Your task to perform on an android device: Go to network settings Image 0: 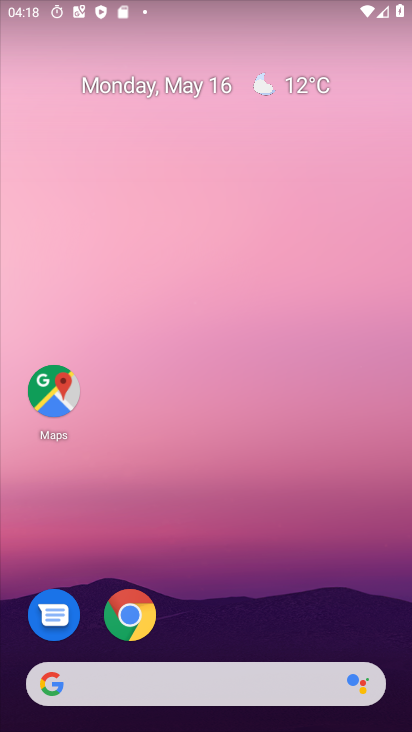
Step 0: drag from (230, 526) to (188, 21)
Your task to perform on an android device: Go to network settings Image 1: 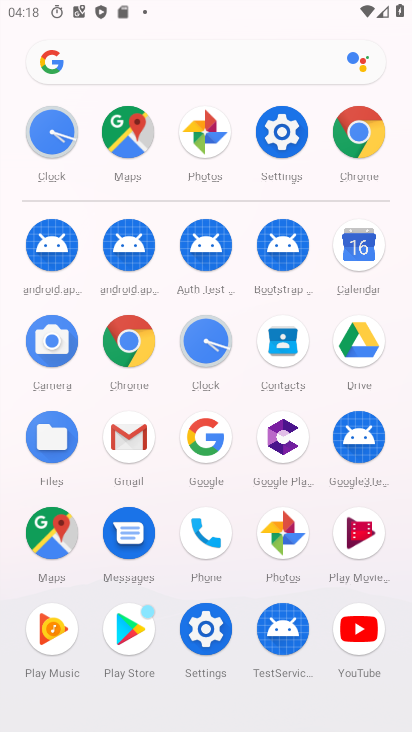
Step 1: click (286, 138)
Your task to perform on an android device: Go to network settings Image 2: 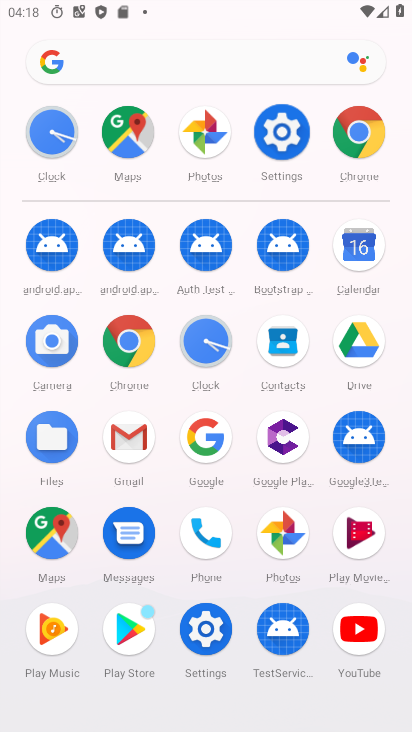
Step 2: click (286, 139)
Your task to perform on an android device: Go to network settings Image 3: 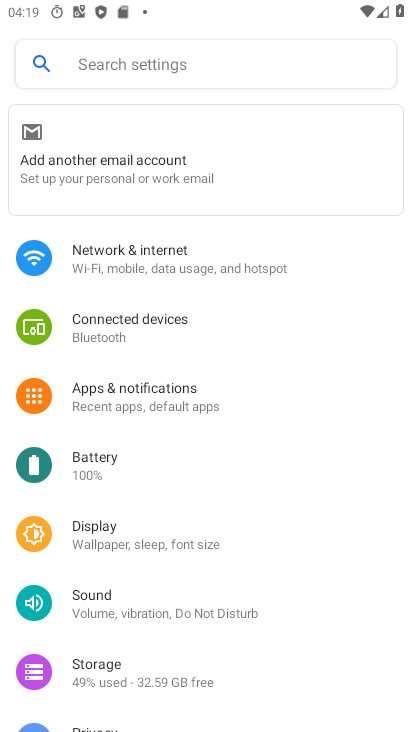
Step 3: drag from (135, 576) to (48, 250)
Your task to perform on an android device: Go to network settings Image 4: 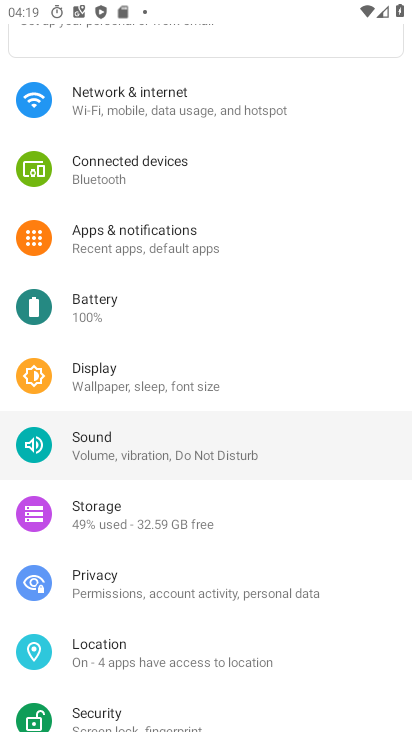
Step 4: drag from (146, 455) to (150, 124)
Your task to perform on an android device: Go to network settings Image 5: 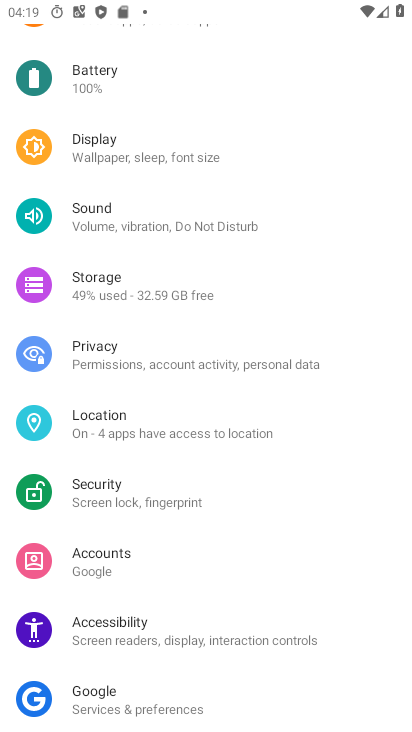
Step 5: drag from (176, 372) to (159, 82)
Your task to perform on an android device: Go to network settings Image 6: 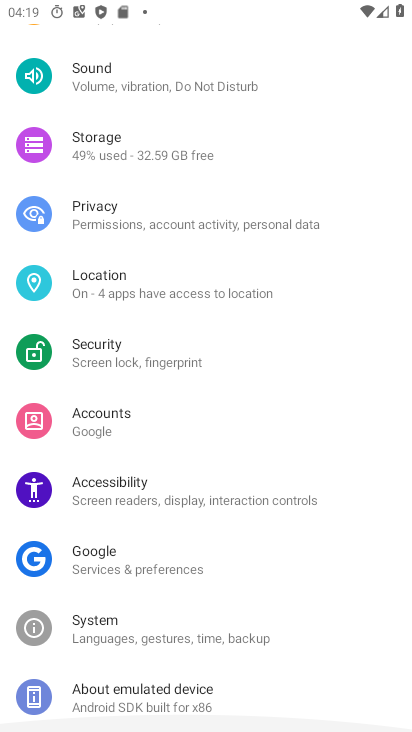
Step 6: drag from (228, 500) to (213, 38)
Your task to perform on an android device: Go to network settings Image 7: 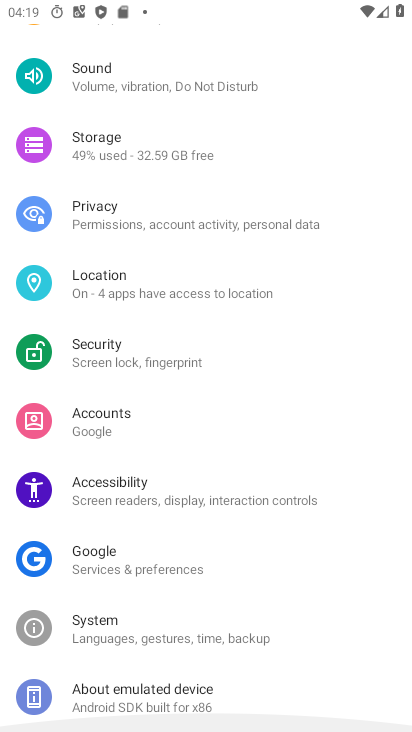
Step 7: drag from (251, 7) to (267, 47)
Your task to perform on an android device: Go to network settings Image 8: 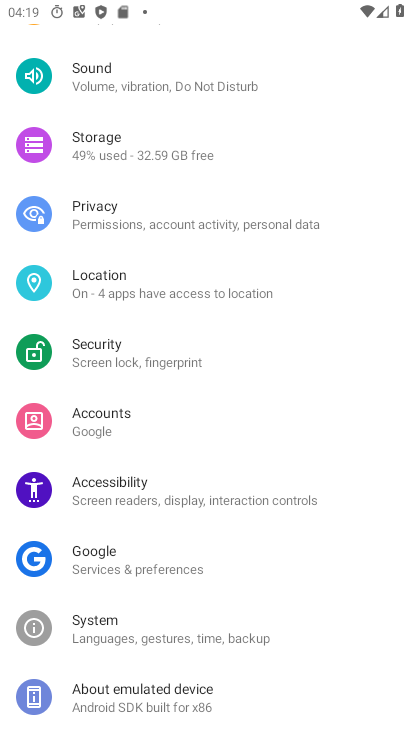
Step 8: drag from (207, 418) to (194, 166)
Your task to perform on an android device: Go to network settings Image 9: 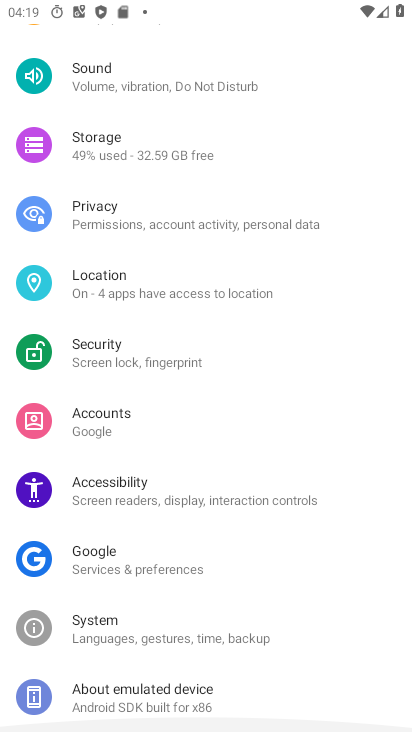
Step 9: drag from (235, 498) to (201, 143)
Your task to perform on an android device: Go to network settings Image 10: 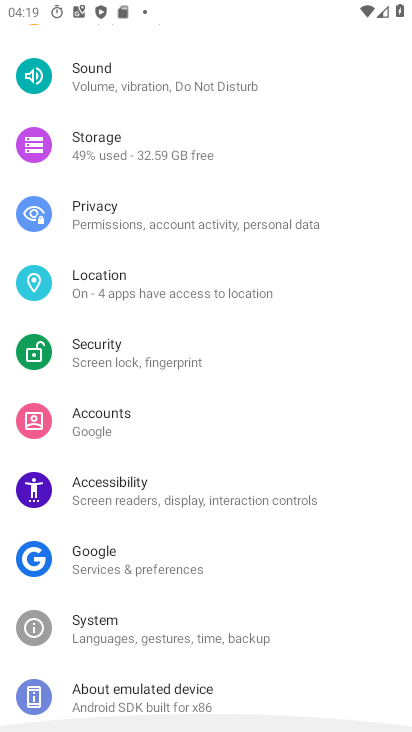
Step 10: drag from (267, 564) to (239, 181)
Your task to perform on an android device: Go to network settings Image 11: 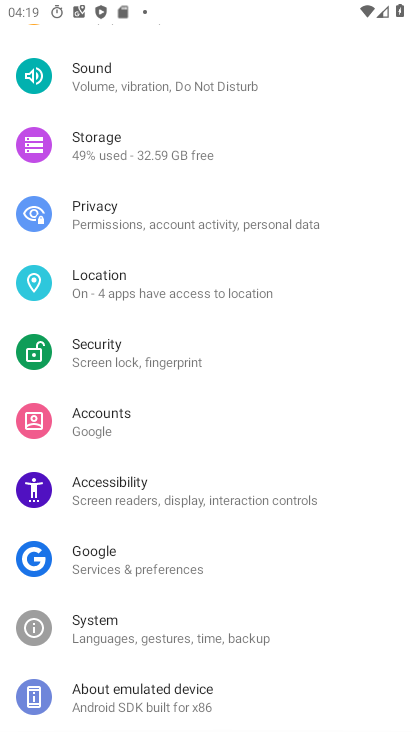
Step 11: drag from (126, 360) to (196, 540)
Your task to perform on an android device: Go to network settings Image 12: 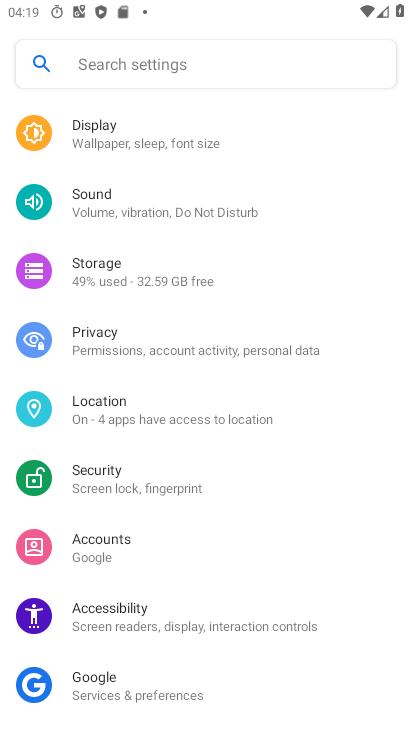
Step 12: drag from (105, 278) to (166, 590)
Your task to perform on an android device: Go to network settings Image 13: 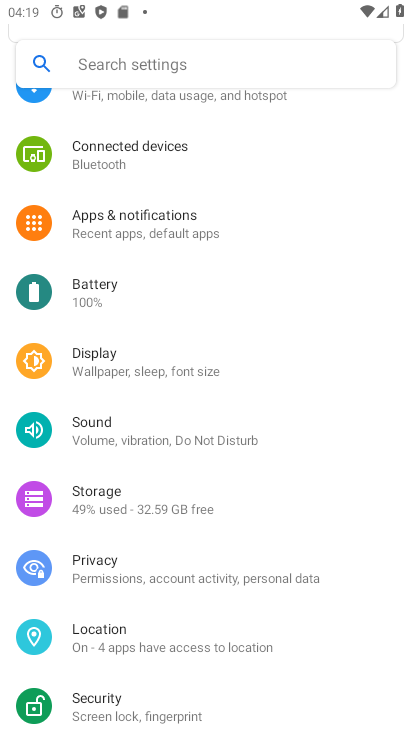
Step 13: drag from (140, 256) to (209, 716)
Your task to perform on an android device: Go to network settings Image 14: 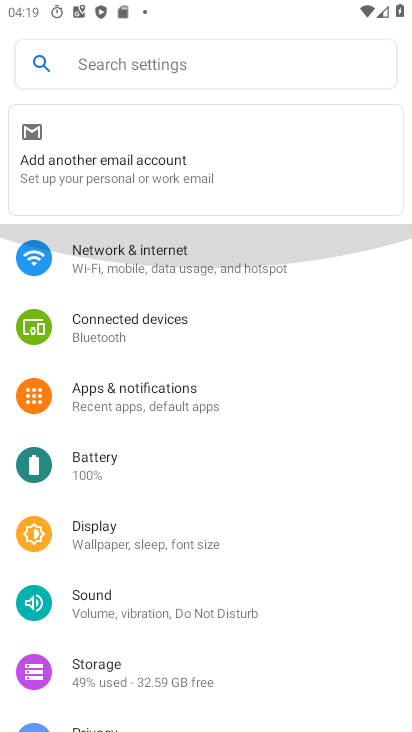
Step 14: drag from (134, 252) to (253, 673)
Your task to perform on an android device: Go to network settings Image 15: 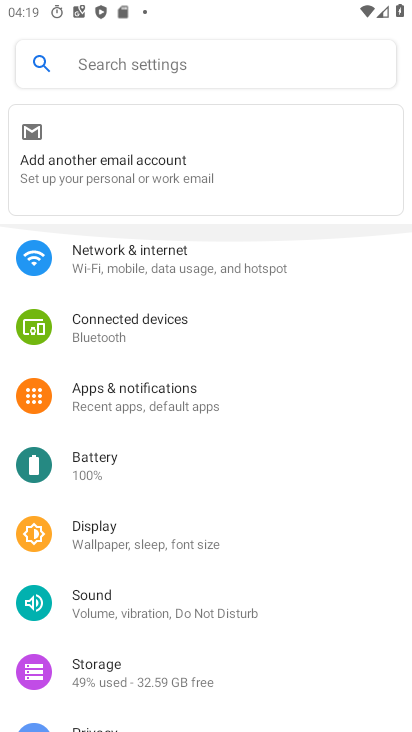
Step 15: click (230, 597)
Your task to perform on an android device: Go to network settings Image 16: 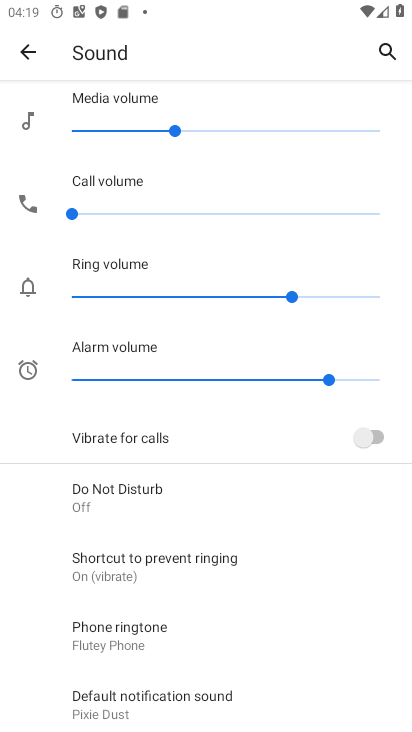
Step 16: click (26, 54)
Your task to perform on an android device: Go to network settings Image 17: 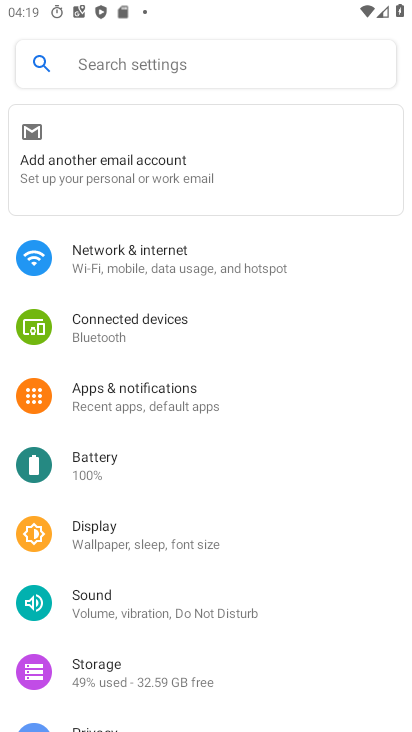
Step 17: click (133, 255)
Your task to perform on an android device: Go to network settings Image 18: 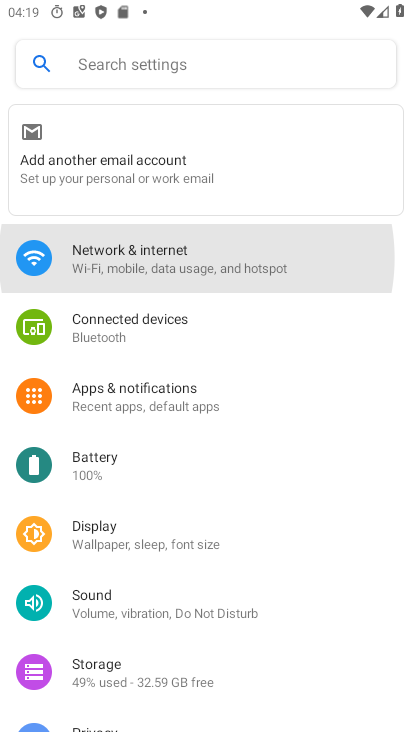
Step 18: click (133, 255)
Your task to perform on an android device: Go to network settings Image 19: 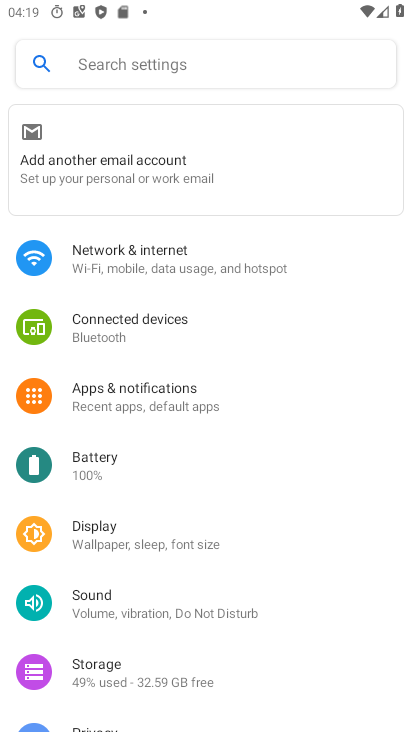
Step 19: click (135, 261)
Your task to perform on an android device: Go to network settings Image 20: 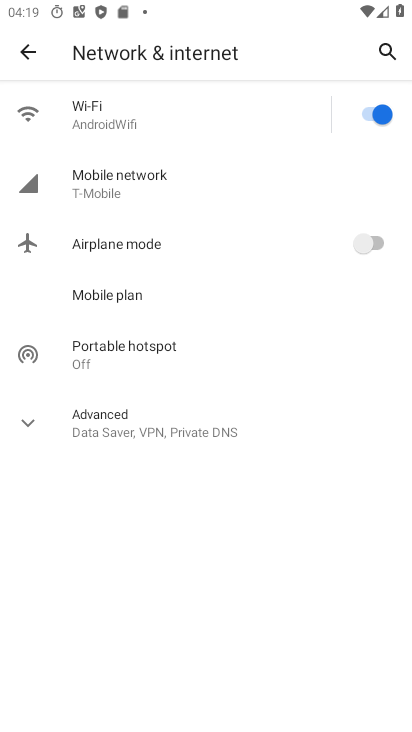
Step 20: task complete